Your task to perform on an android device: Open Reddit.com Image 0: 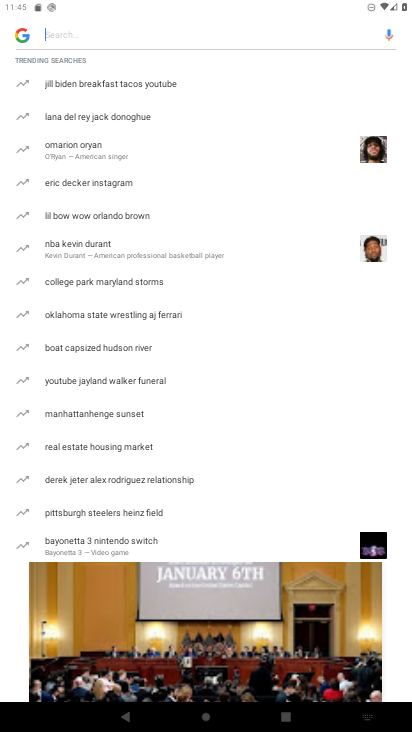
Step 0: press back button
Your task to perform on an android device: Open Reddit.com Image 1: 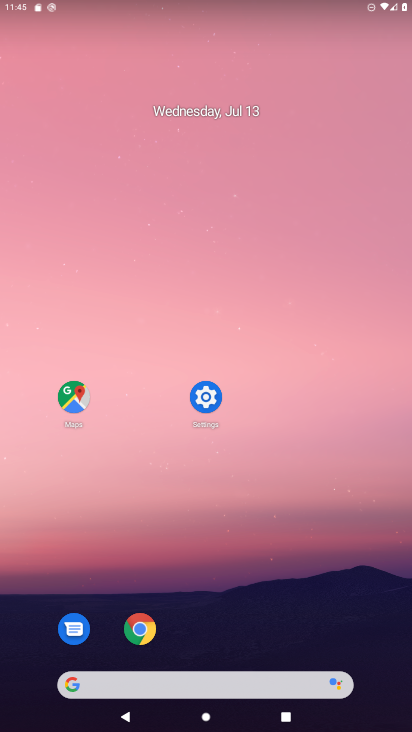
Step 1: click (132, 634)
Your task to perform on an android device: Open Reddit.com Image 2: 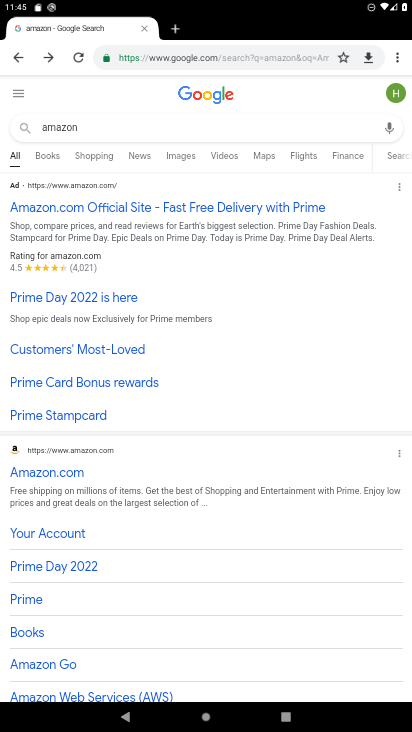
Step 2: click (313, 55)
Your task to perform on an android device: Open Reddit.com Image 3: 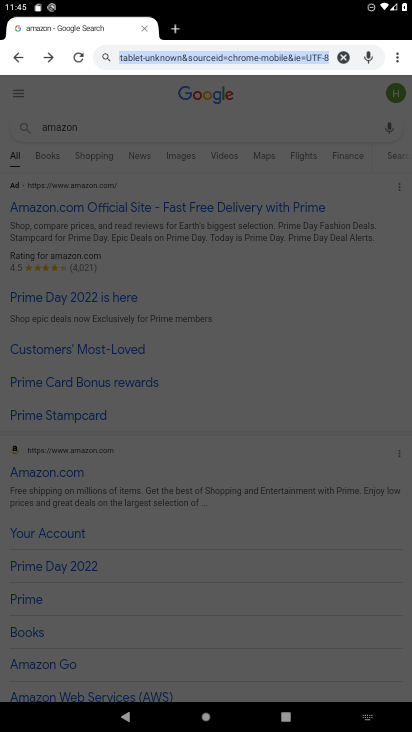
Step 3: click (340, 57)
Your task to perform on an android device: Open Reddit.com Image 4: 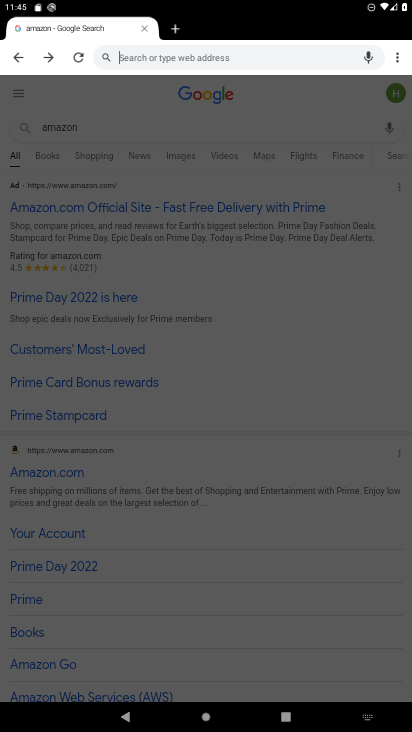
Step 4: type "Reddit.com"
Your task to perform on an android device: Open Reddit.com Image 5: 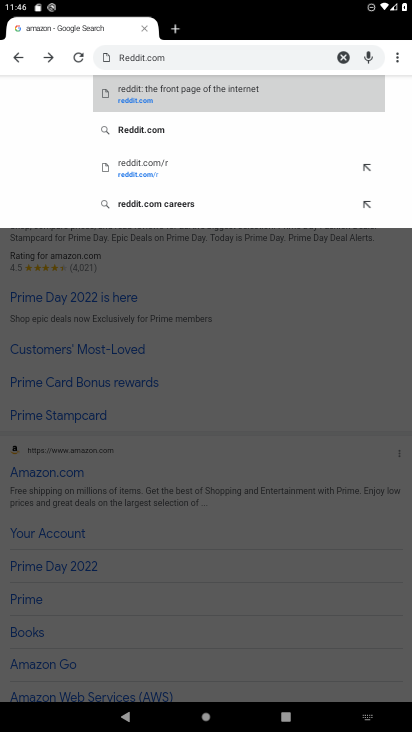
Step 5: click (123, 128)
Your task to perform on an android device: Open Reddit.com Image 6: 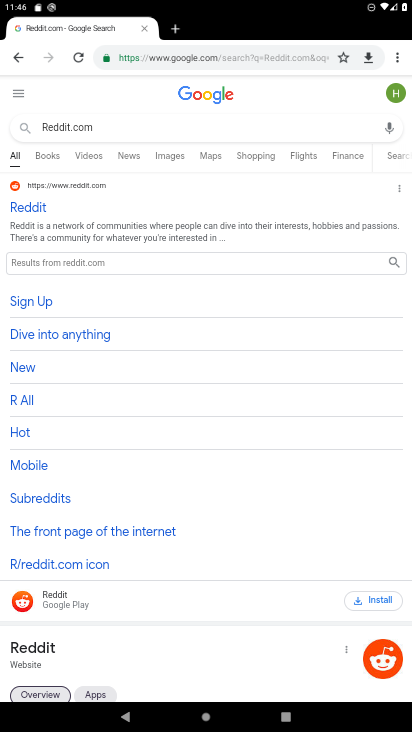
Step 6: task complete